Your task to perform on an android device: toggle location history Image 0: 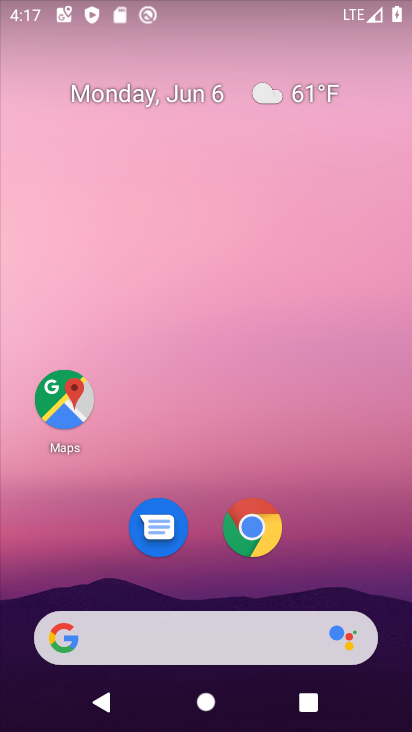
Step 0: drag from (330, 527) to (329, 109)
Your task to perform on an android device: toggle location history Image 1: 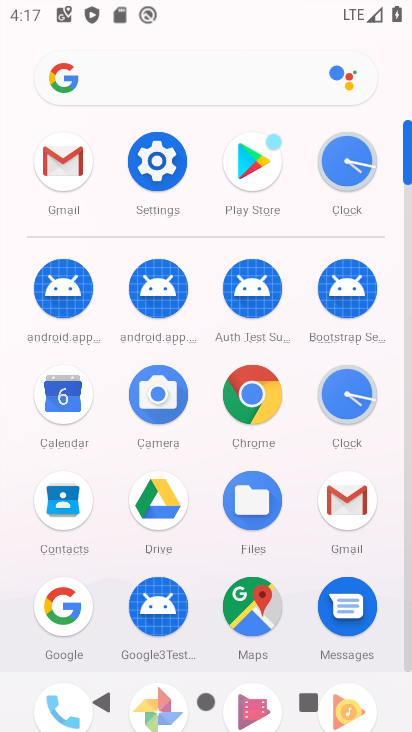
Step 1: click (155, 166)
Your task to perform on an android device: toggle location history Image 2: 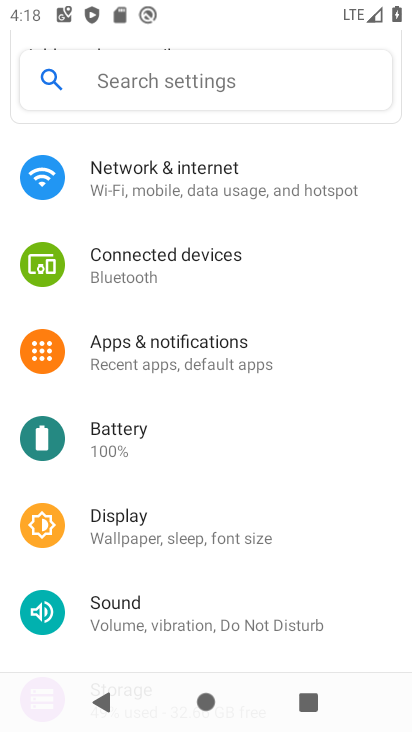
Step 2: drag from (361, 449) to (334, 0)
Your task to perform on an android device: toggle location history Image 3: 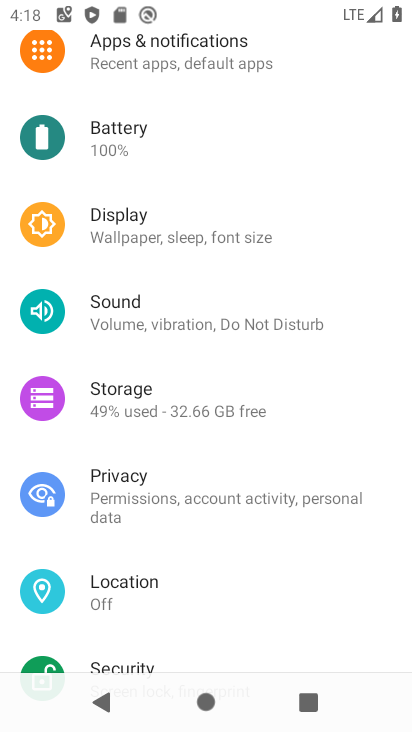
Step 3: click (144, 572)
Your task to perform on an android device: toggle location history Image 4: 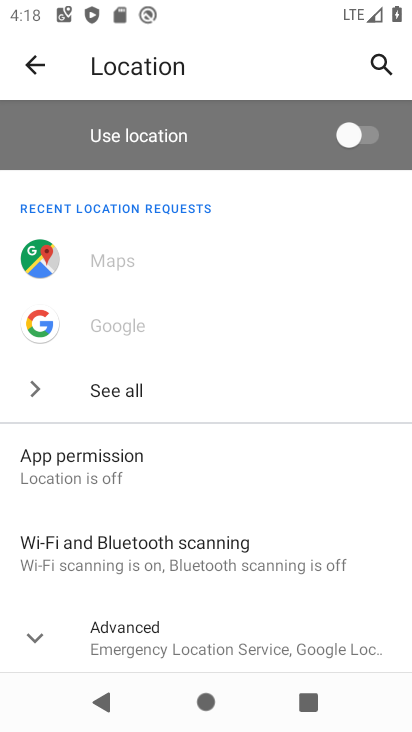
Step 4: click (187, 620)
Your task to perform on an android device: toggle location history Image 5: 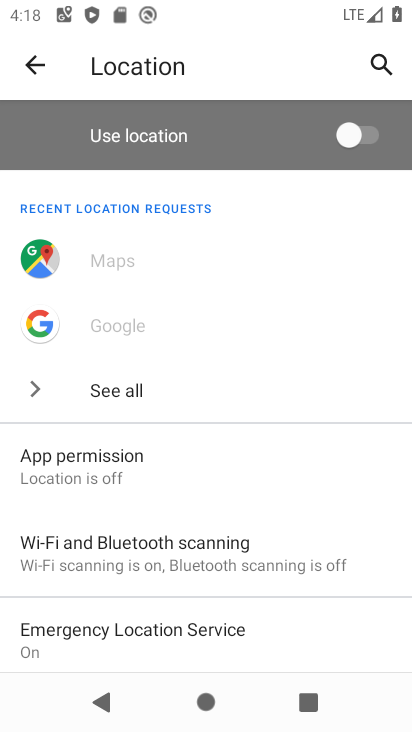
Step 5: drag from (284, 615) to (253, 271)
Your task to perform on an android device: toggle location history Image 6: 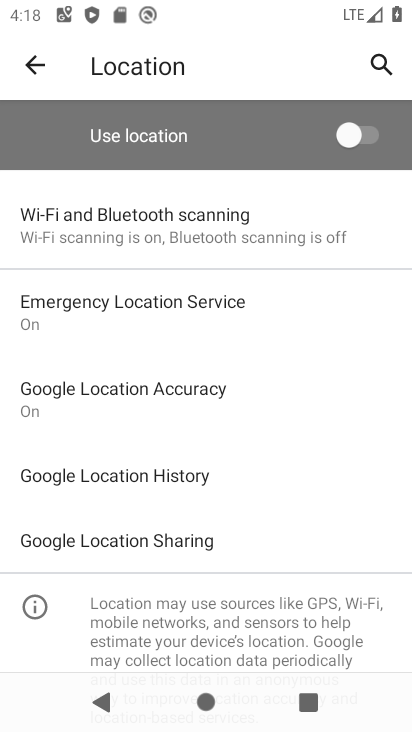
Step 6: click (187, 464)
Your task to perform on an android device: toggle location history Image 7: 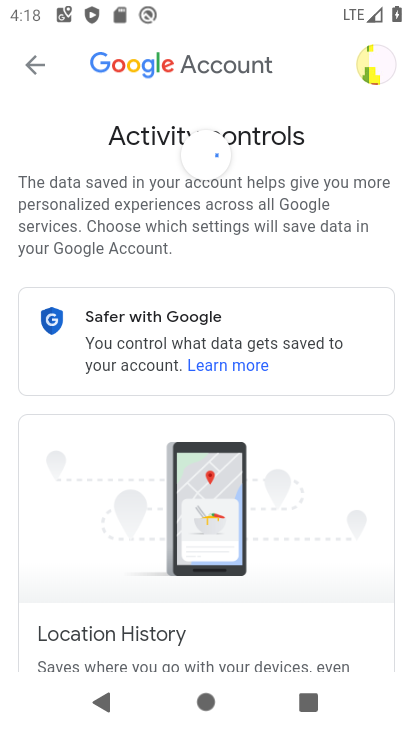
Step 7: drag from (321, 532) to (304, 272)
Your task to perform on an android device: toggle location history Image 8: 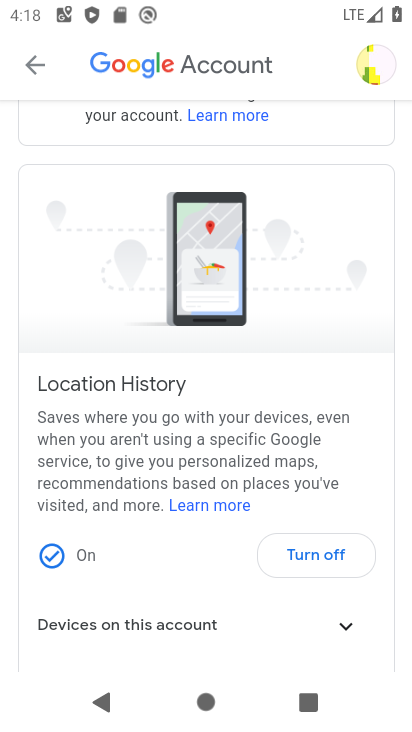
Step 8: click (304, 551)
Your task to perform on an android device: toggle location history Image 9: 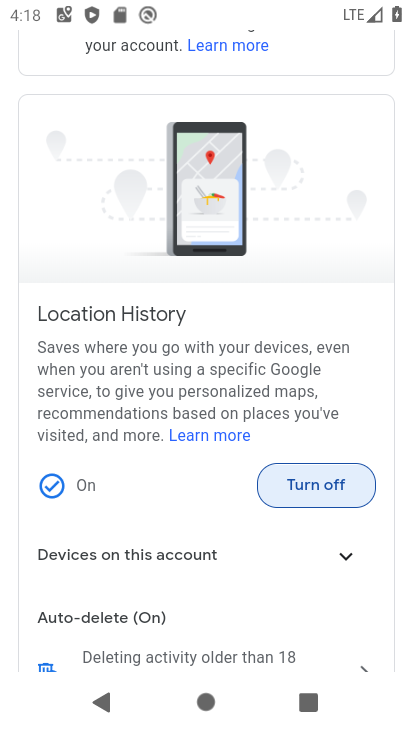
Step 9: click (304, 551)
Your task to perform on an android device: toggle location history Image 10: 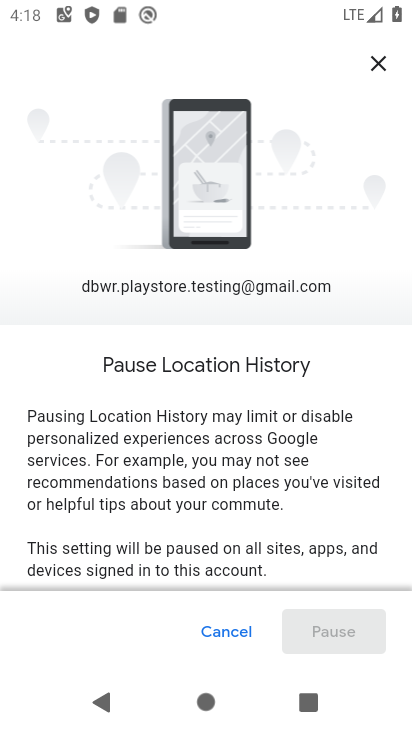
Step 10: drag from (351, 422) to (333, 254)
Your task to perform on an android device: toggle location history Image 11: 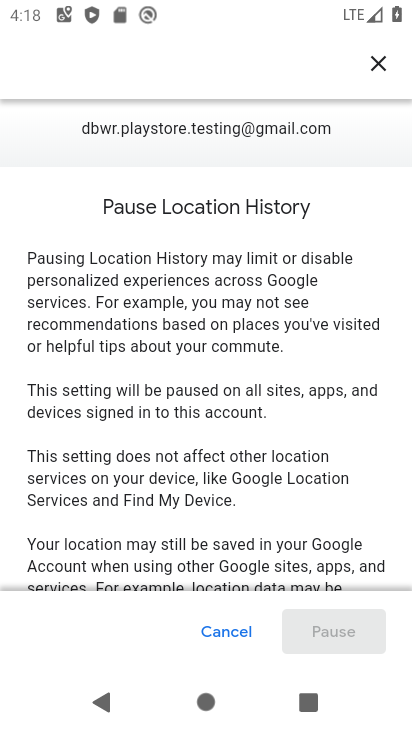
Step 11: drag from (319, 466) to (298, 140)
Your task to perform on an android device: toggle location history Image 12: 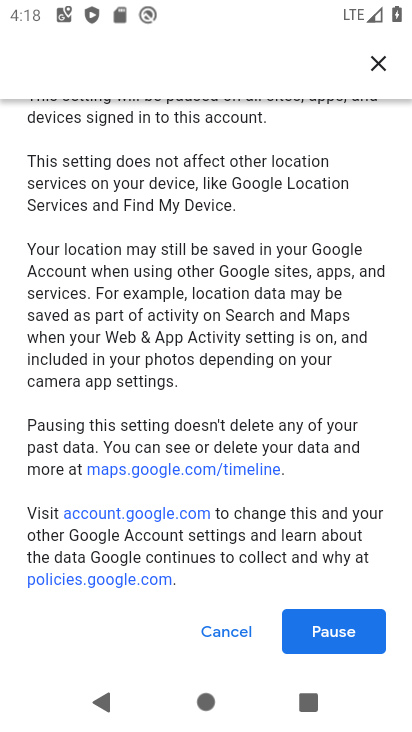
Step 12: click (341, 625)
Your task to perform on an android device: toggle location history Image 13: 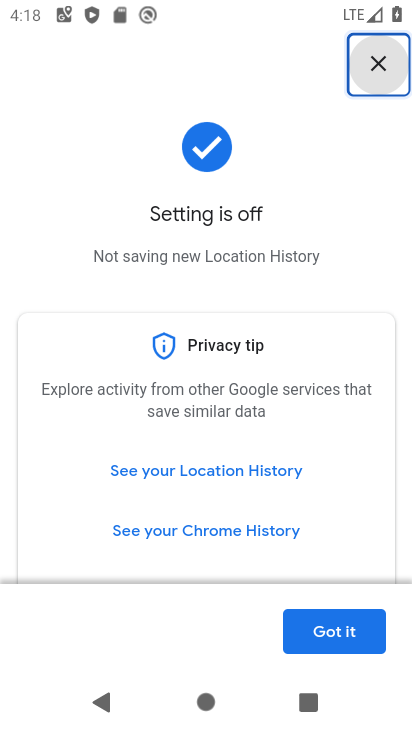
Step 13: click (341, 625)
Your task to perform on an android device: toggle location history Image 14: 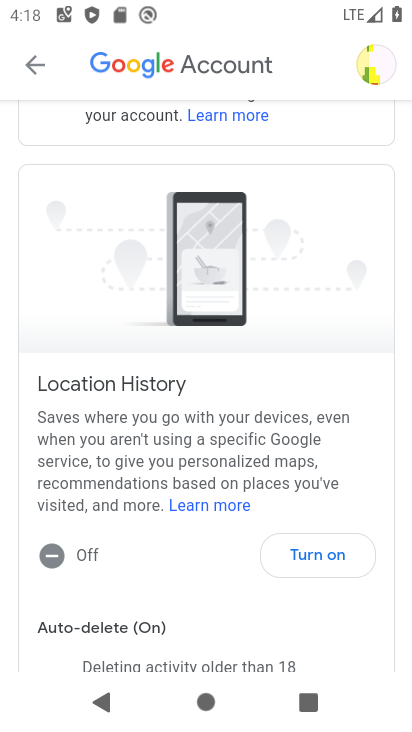
Step 14: task complete